Your task to perform on an android device: Play the last video I watched on Youtube Image 0: 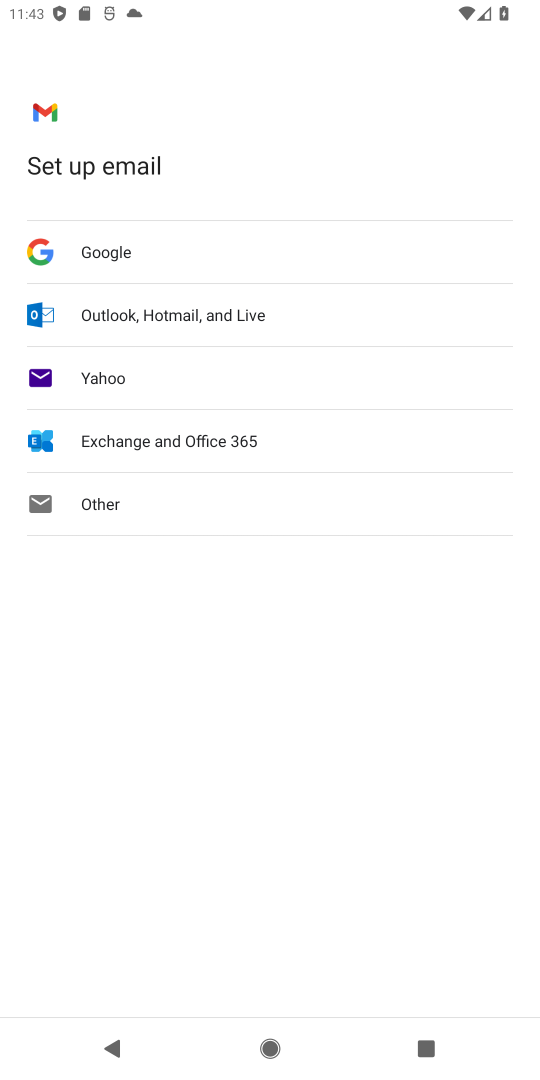
Step 0: press home button
Your task to perform on an android device: Play the last video I watched on Youtube Image 1: 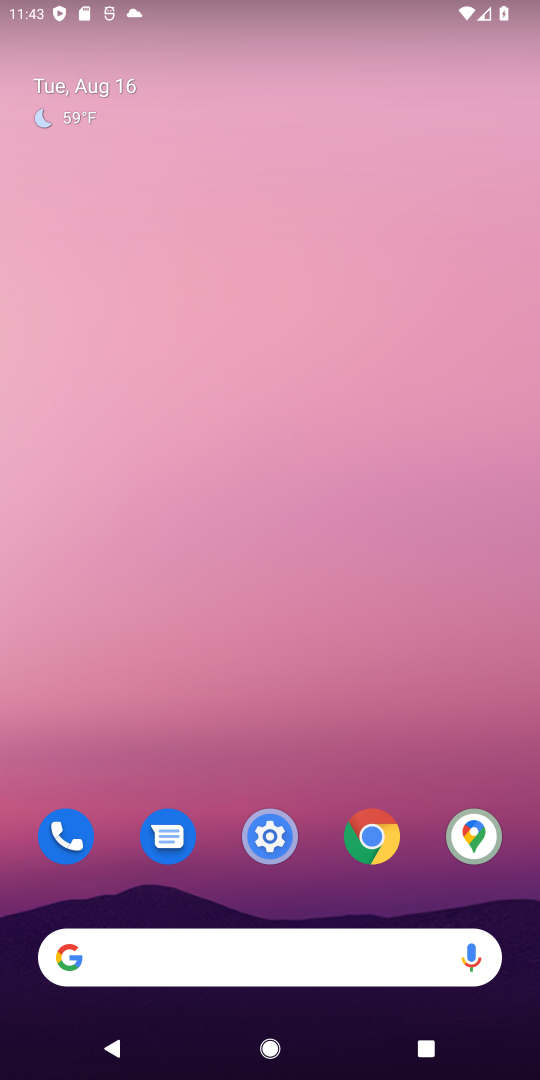
Step 1: drag from (232, 954) to (282, 264)
Your task to perform on an android device: Play the last video I watched on Youtube Image 2: 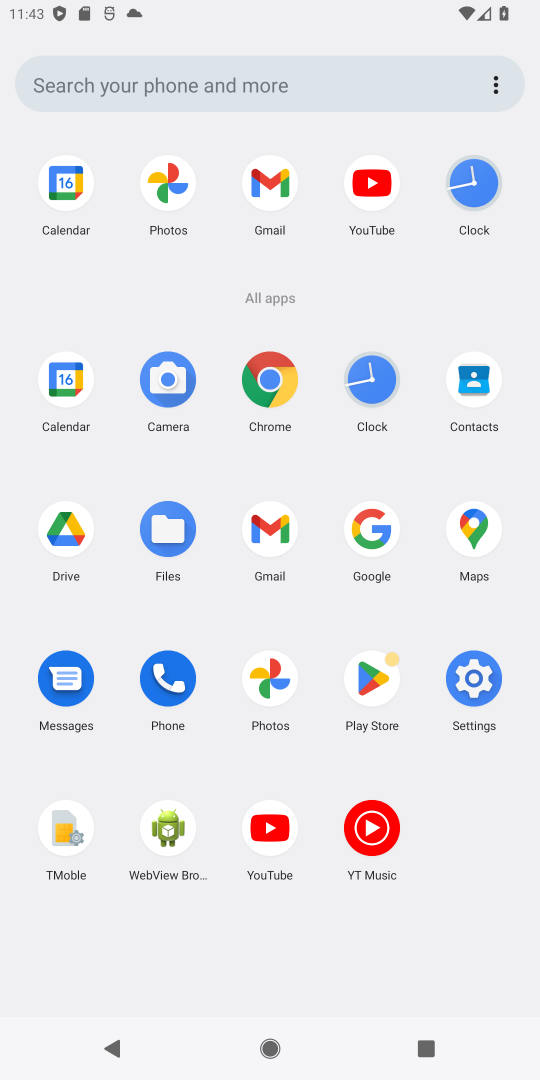
Step 2: click (368, 185)
Your task to perform on an android device: Play the last video I watched on Youtube Image 3: 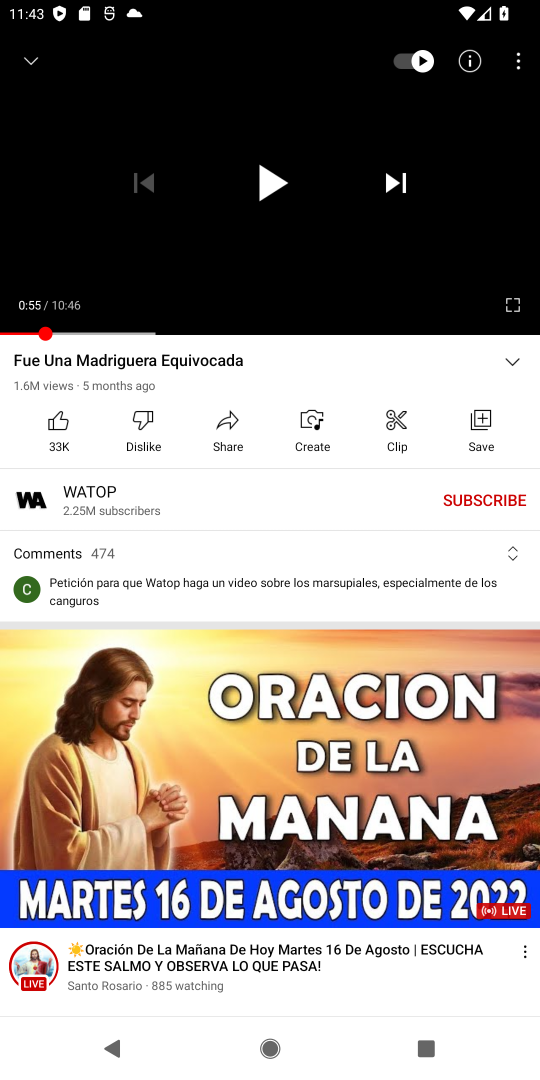
Step 3: click (281, 182)
Your task to perform on an android device: Play the last video I watched on Youtube Image 4: 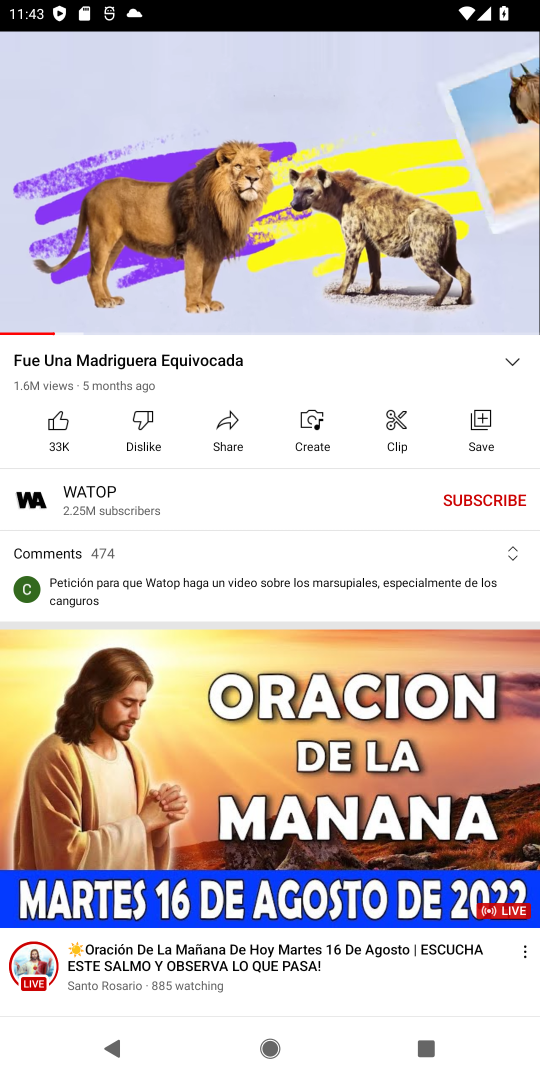
Step 4: click (295, 174)
Your task to perform on an android device: Play the last video I watched on Youtube Image 5: 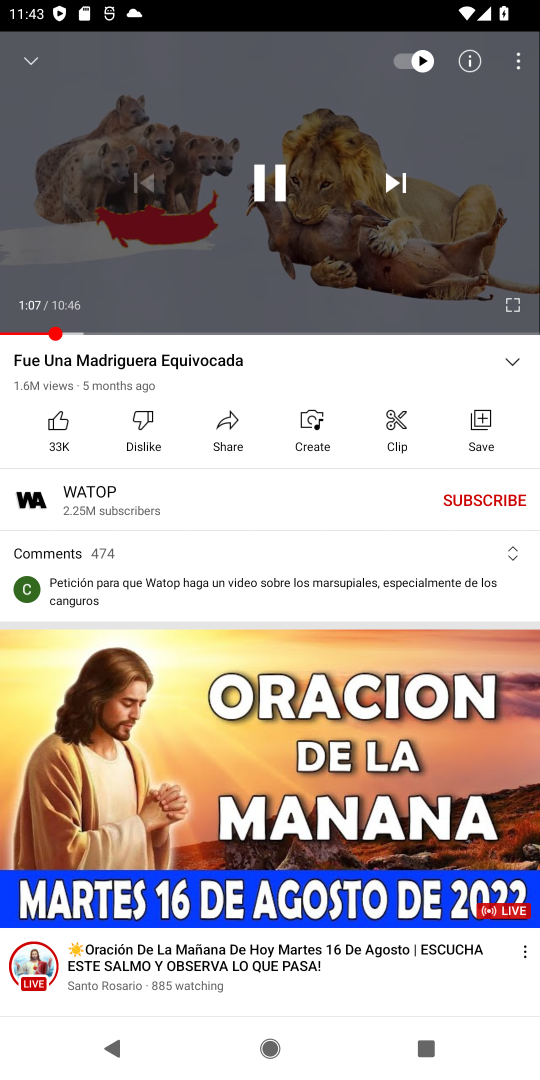
Step 5: click (290, 173)
Your task to perform on an android device: Play the last video I watched on Youtube Image 6: 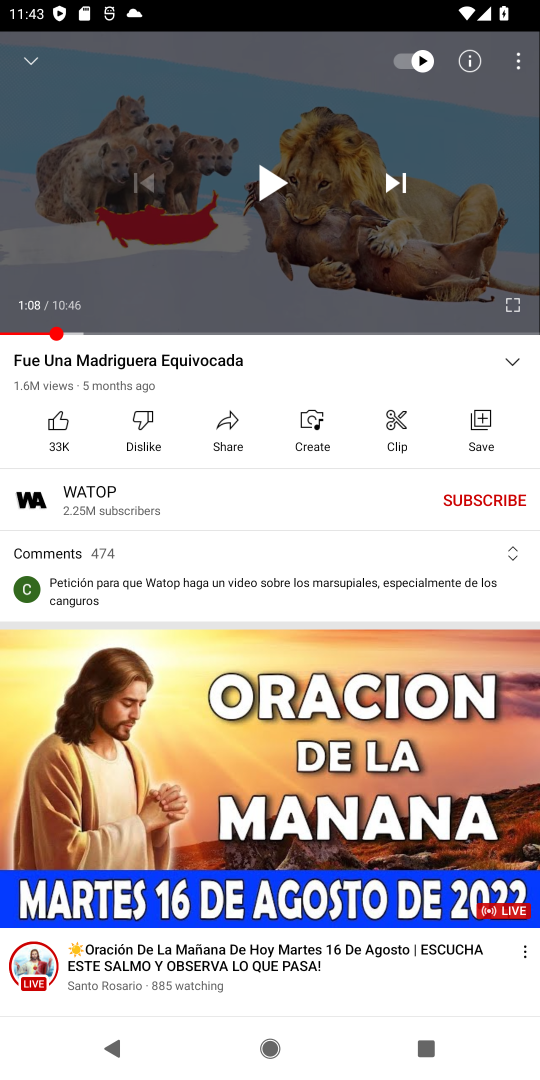
Step 6: task complete